Your task to perform on an android device: See recent photos Image 0: 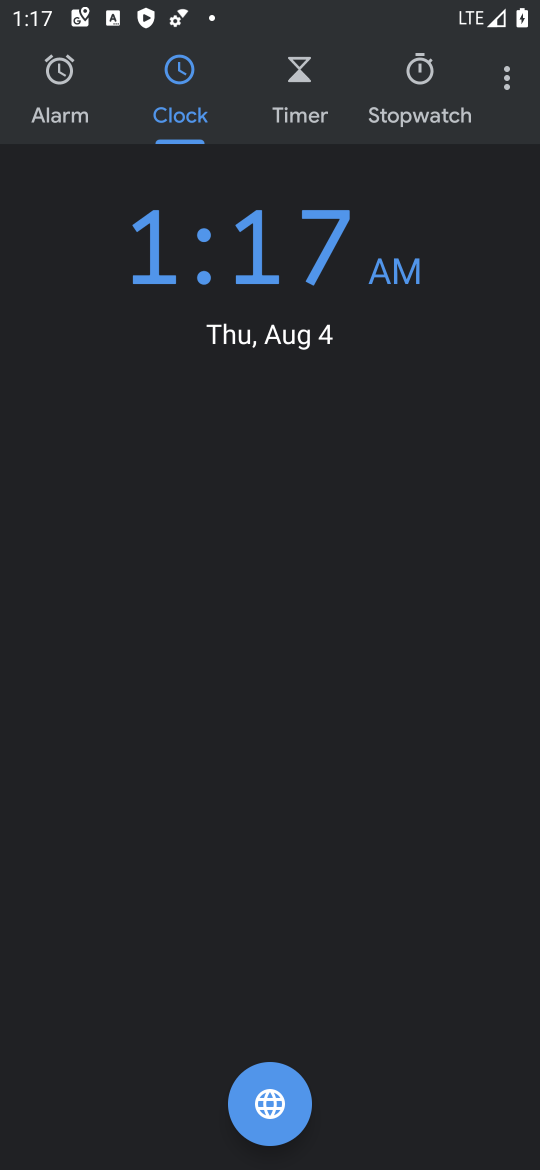
Step 0: press home button
Your task to perform on an android device: See recent photos Image 1: 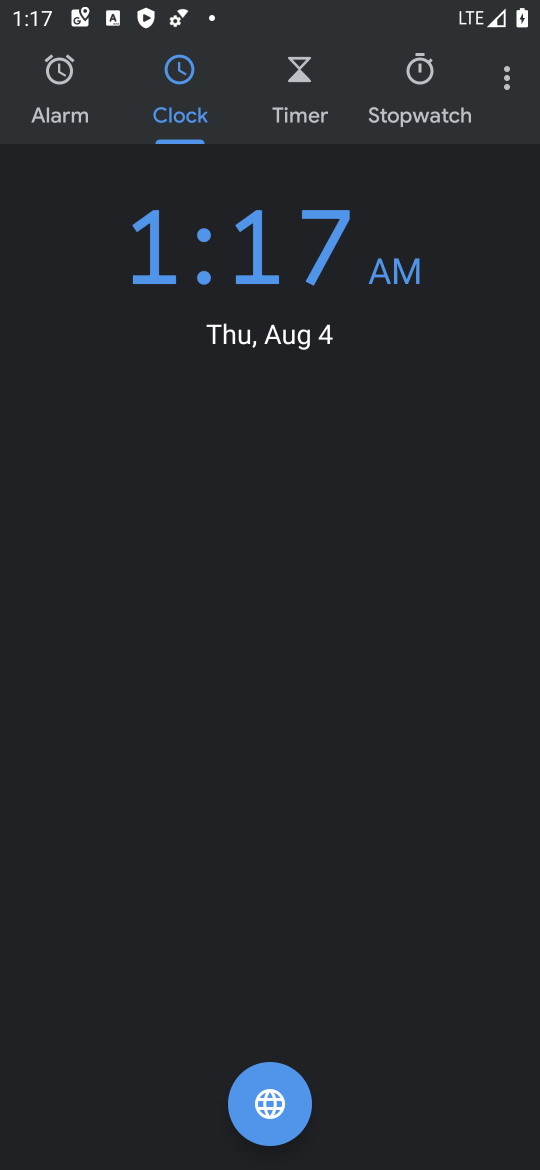
Step 1: press home button
Your task to perform on an android device: See recent photos Image 2: 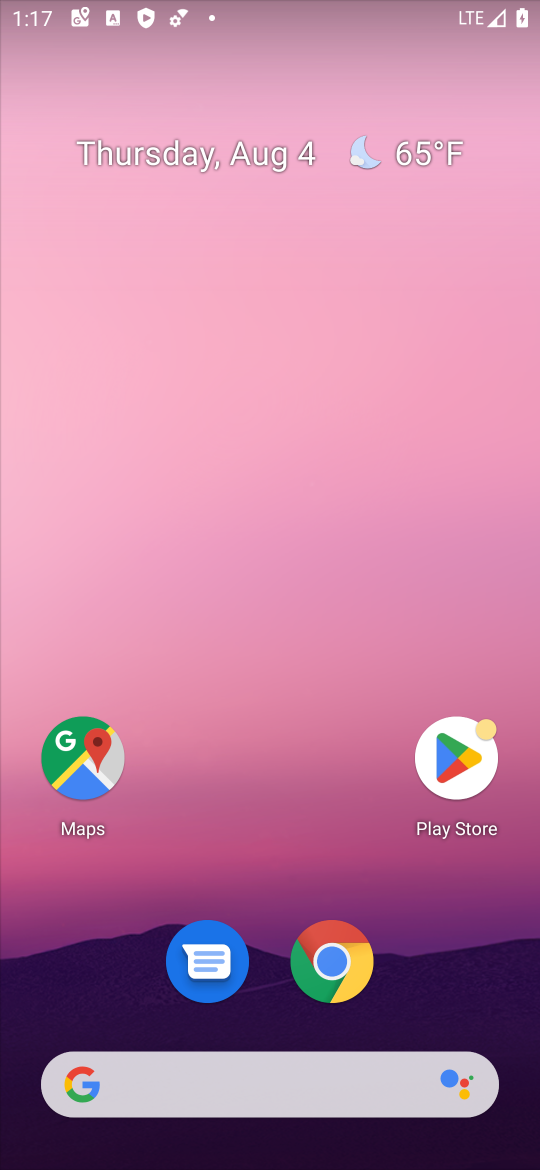
Step 2: drag from (258, 779) to (416, 0)
Your task to perform on an android device: See recent photos Image 3: 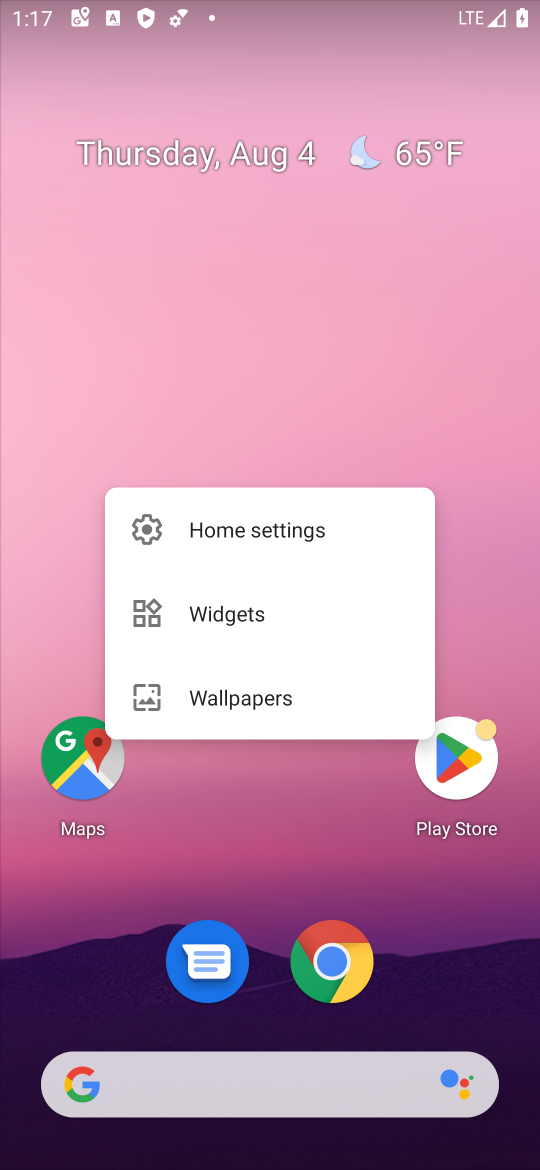
Step 3: drag from (231, 780) to (253, 57)
Your task to perform on an android device: See recent photos Image 4: 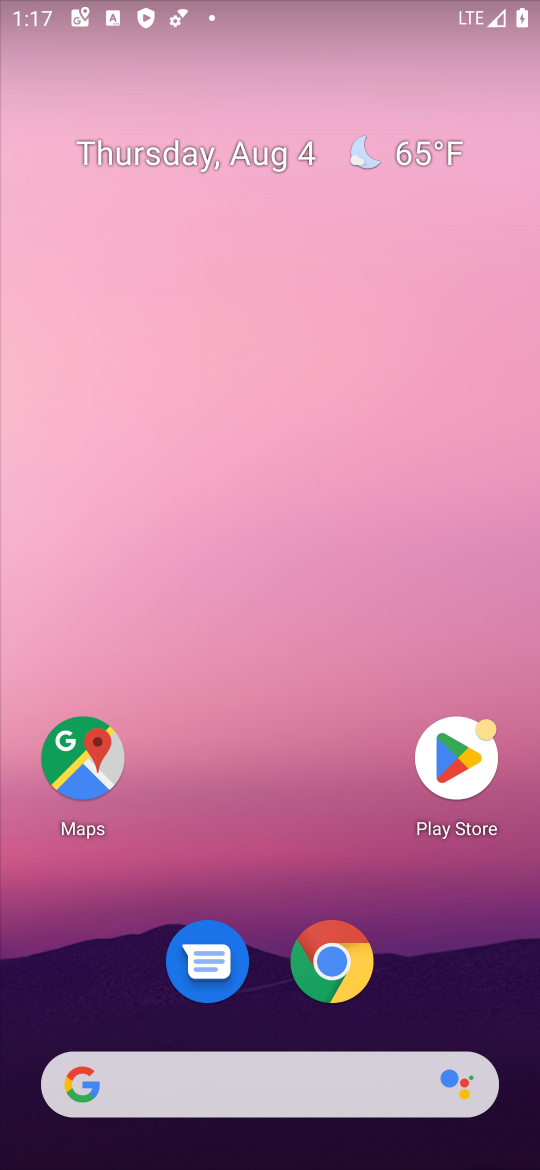
Step 4: drag from (292, 838) to (318, 0)
Your task to perform on an android device: See recent photos Image 5: 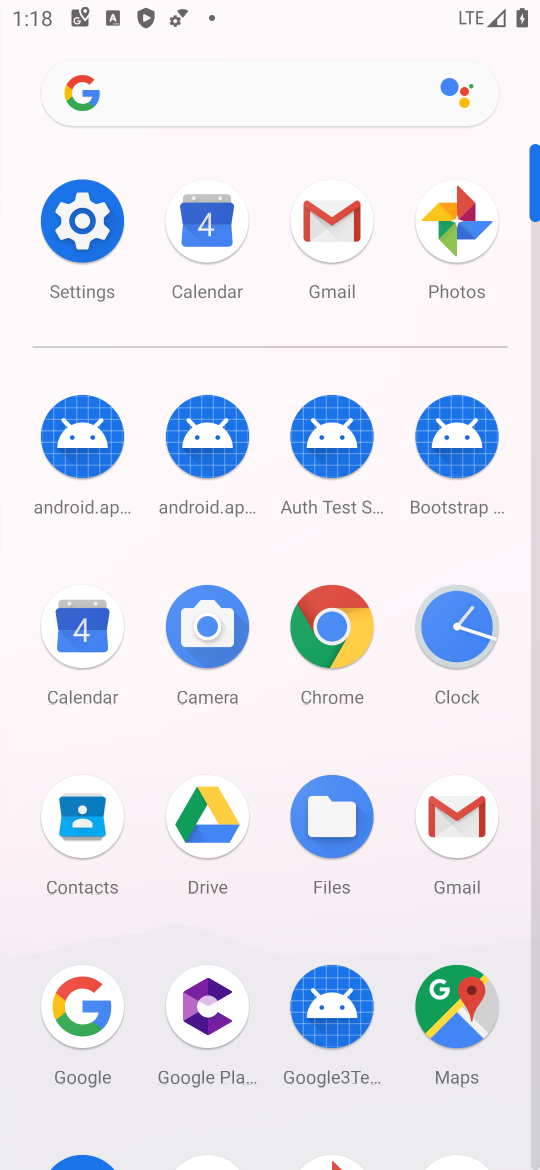
Step 5: click (455, 227)
Your task to perform on an android device: See recent photos Image 6: 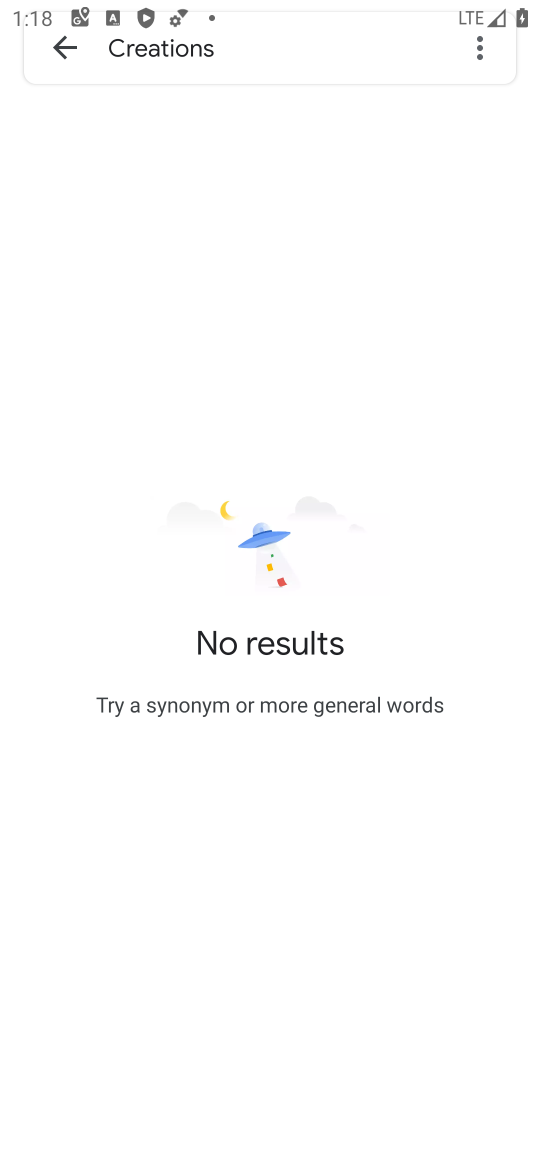
Step 6: click (72, 46)
Your task to perform on an android device: See recent photos Image 7: 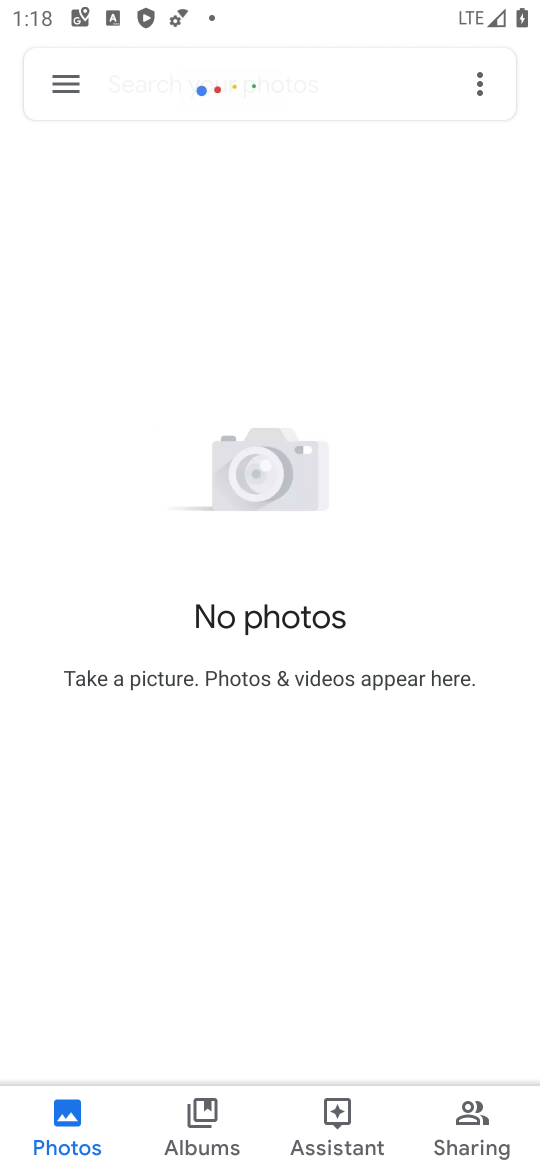
Step 7: click (75, 1109)
Your task to perform on an android device: See recent photos Image 8: 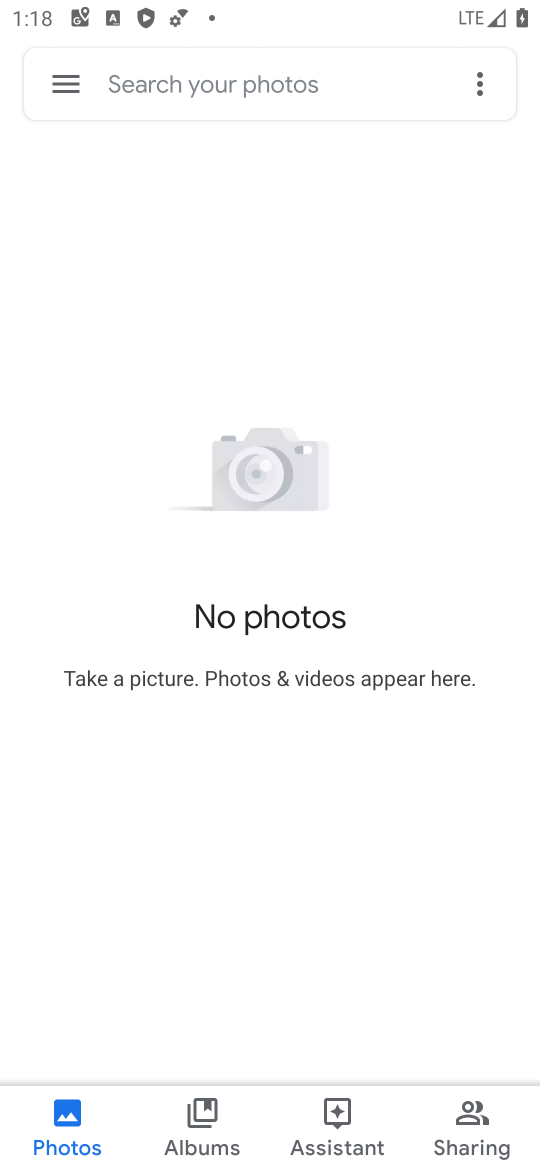
Step 8: task complete